Your task to perform on an android device: Open the Play Movies app and select the watchlist tab. Image 0: 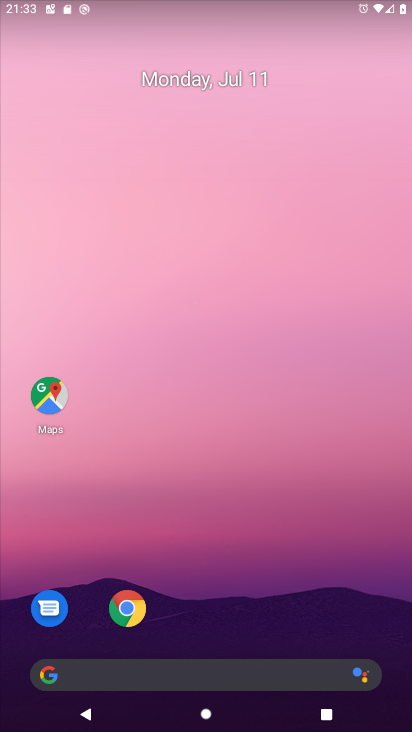
Step 0: drag from (269, 631) to (210, 112)
Your task to perform on an android device: Open the Play Movies app and select the watchlist tab. Image 1: 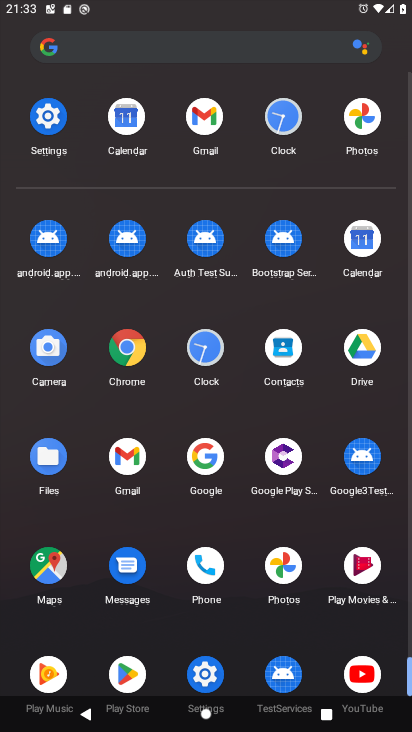
Step 1: click (351, 597)
Your task to perform on an android device: Open the Play Movies app and select the watchlist tab. Image 2: 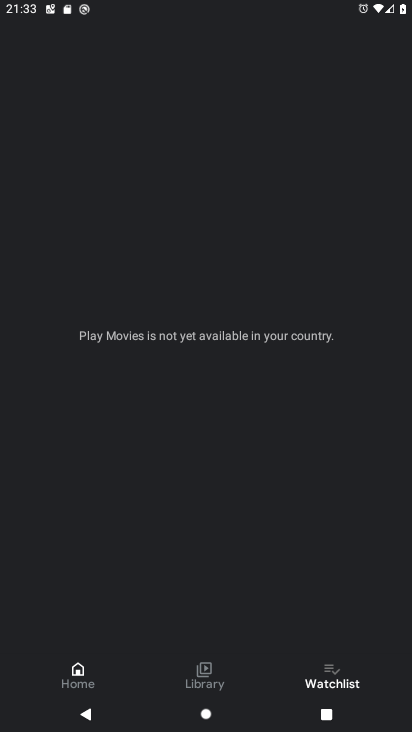
Step 2: task complete